Your task to perform on an android device: change the clock display to show seconds Image 0: 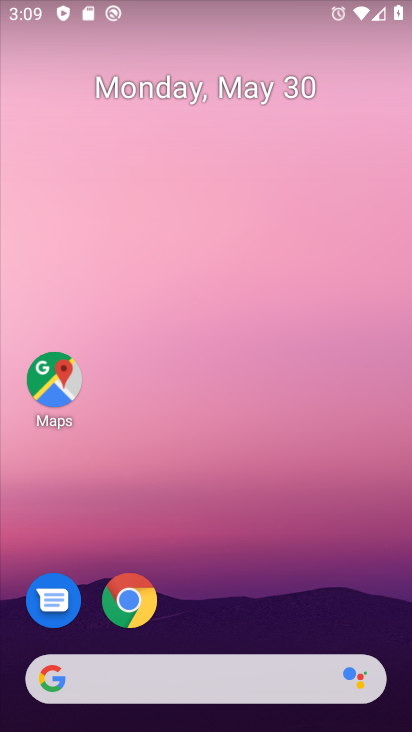
Step 0: drag from (236, 726) to (246, 115)
Your task to perform on an android device: change the clock display to show seconds Image 1: 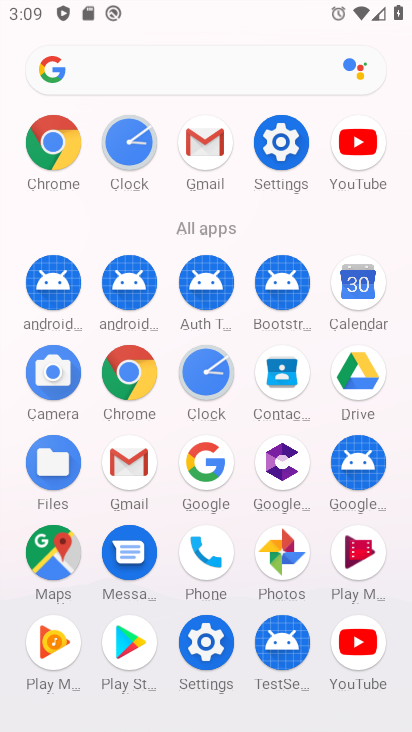
Step 1: click (203, 373)
Your task to perform on an android device: change the clock display to show seconds Image 2: 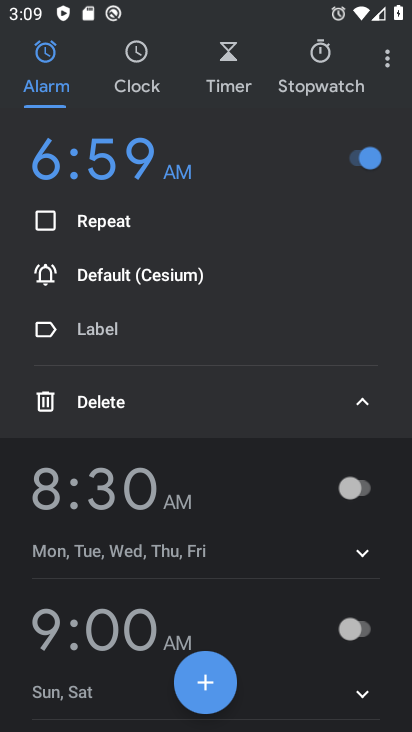
Step 2: click (388, 65)
Your task to perform on an android device: change the clock display to show seconds Image 3: 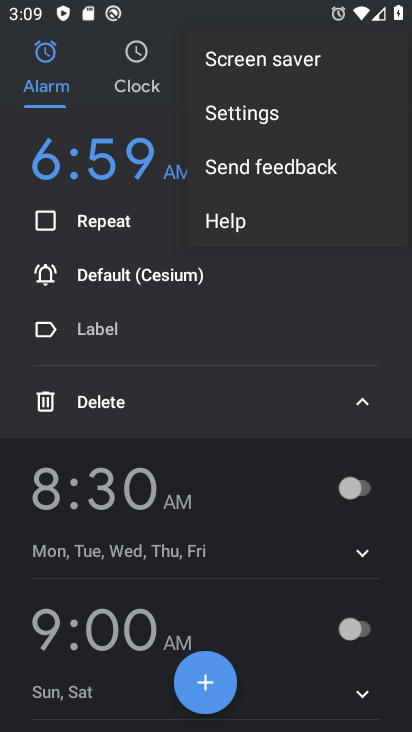
Step 3: click (249, 110)
Your task to perform on an android device: change the clock display to show seconds Image 4: 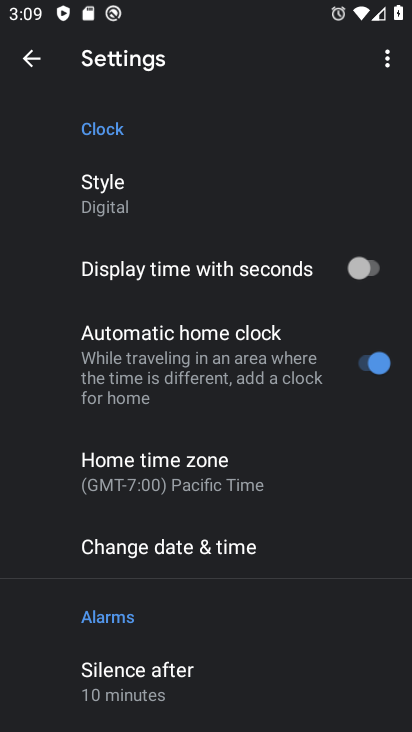
Step 4: click (378, 268)
Your task to perform on an android device: change the clock display to show seconds Image 5: 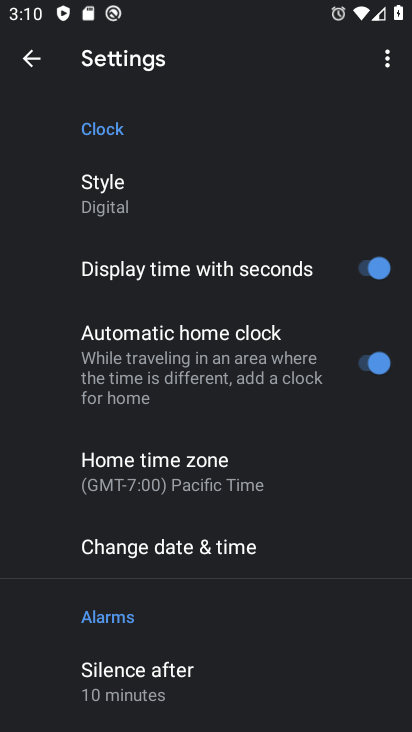
Step 5: task complete